Your task to perform on an android device: Open settings Image 0: 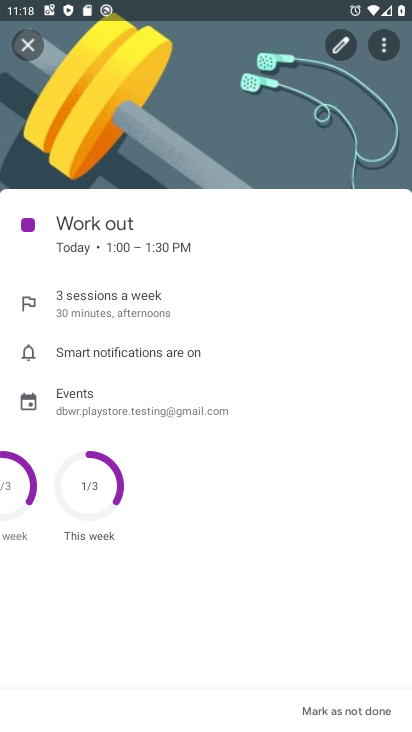
Step 0: press home button
Your task to perform on an android device: Open settings Image 1: 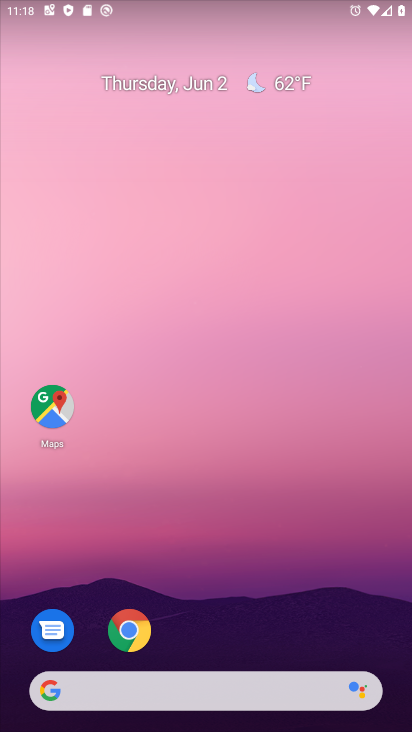
Step 1: drag from (200, 704) to (329, 228)
Your task to perform on an android device: Open settings Image 2: 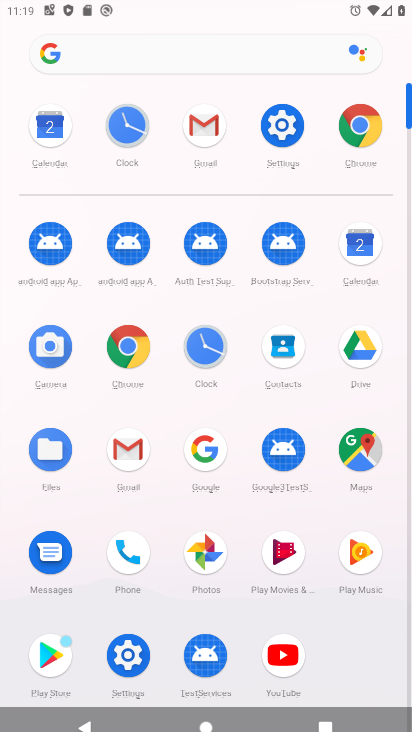
Step 2: click (280, 132)
Your task to perform on an android device: Open settings Image 3: 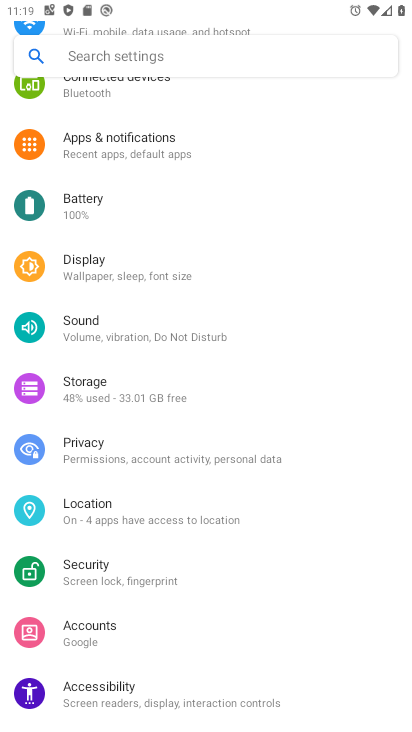
Step 3: task complete